Your task to perform on an android device: What's the weather going to be tomorrow? Image 0: 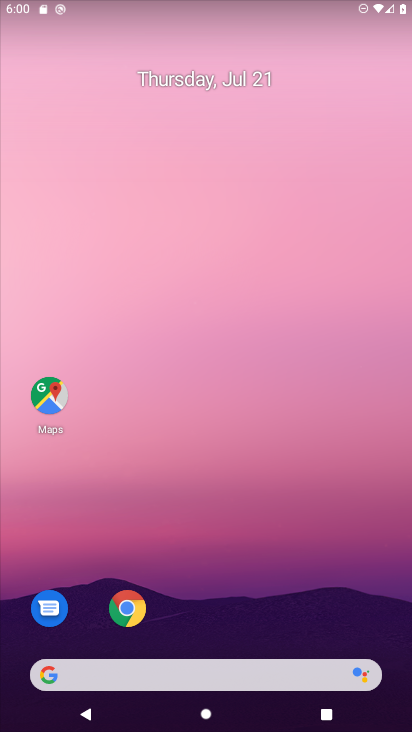
Step 0: drag from (204, 673) to (209, 87)
Your task to perform on an android device: What's the weather going to be tomorrow? Image 1: 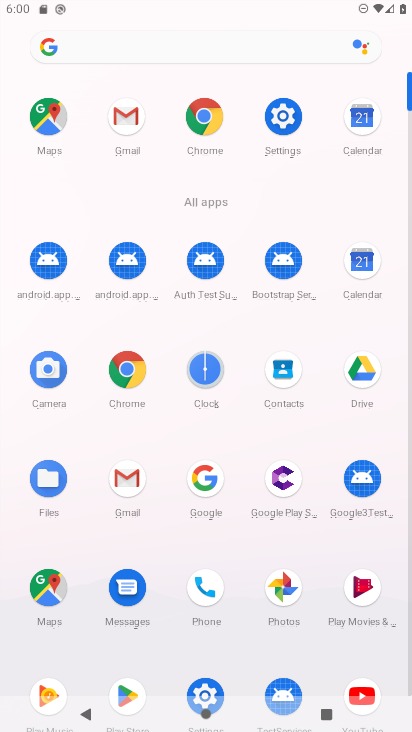
Step 1: click (203, 478)
Your task to perform on an android device: What's the weather going to be tomorrow? Image 2: 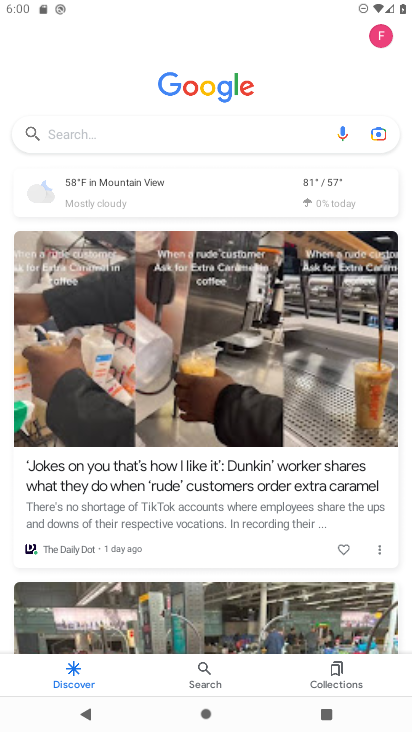
Step 2: click (238, 190)
Your task to perform on an android device: What's the weather going to be tomorrow? Image 3: 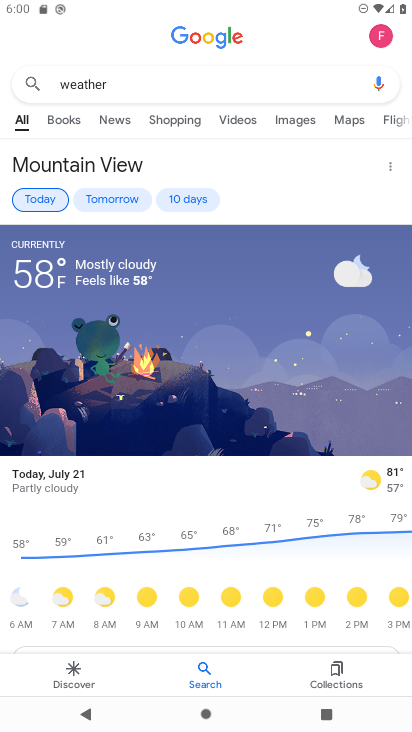
Step 3: click (109, 196)
Your task to perform on an android device: What's the weather going to be tomorrow? Image 4: 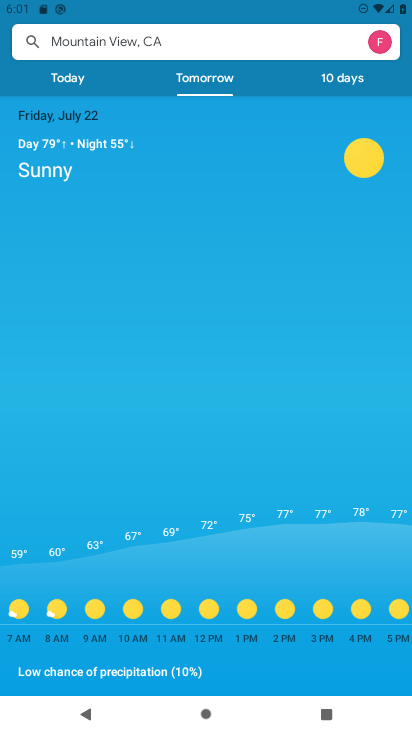
Step 4: task complete